Your task to perform on an android device: Open settings on Google Maps Image 0: 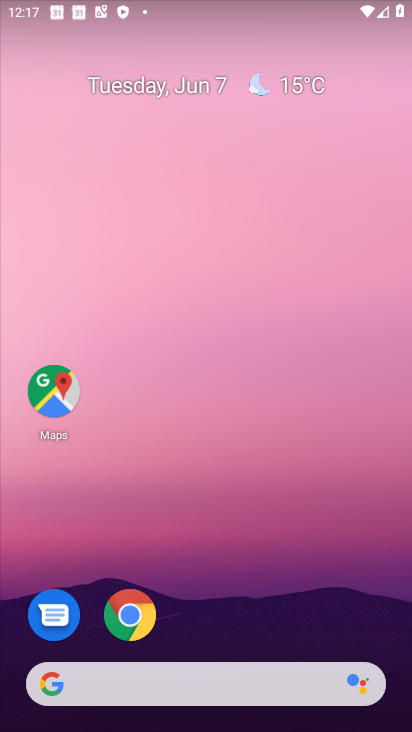
Step 0: click (54, 396)
Your task to perform on an android device: Open settings on Google Maps Image 1: 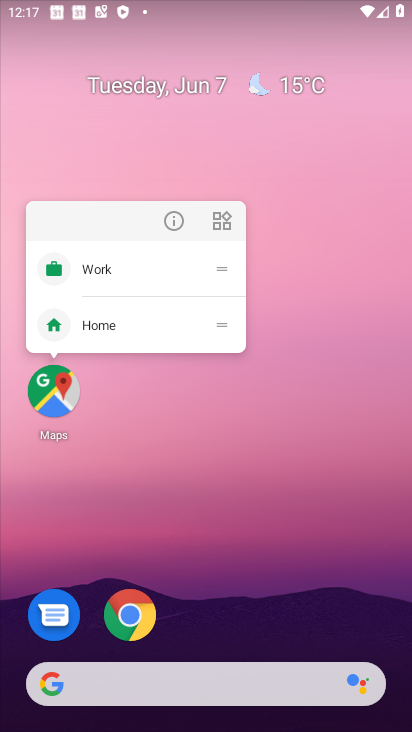
Step 1: click (53, 399)
Your task to perform on an android device: Open settings on Google Maps Image 2: 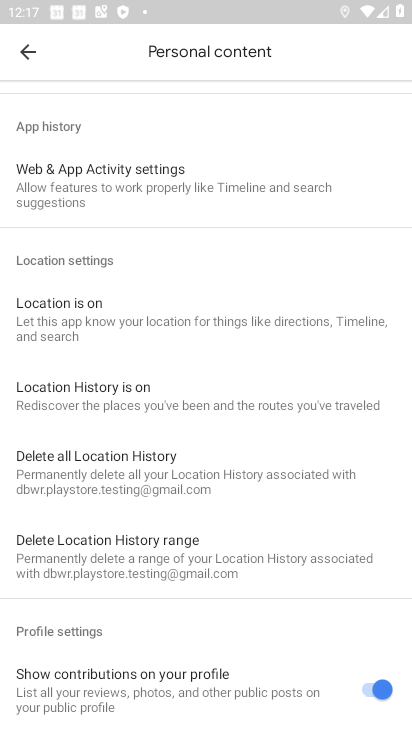
Step 2: task complete